Your task to perform on an android device: open sync settings in chrome Image 0: 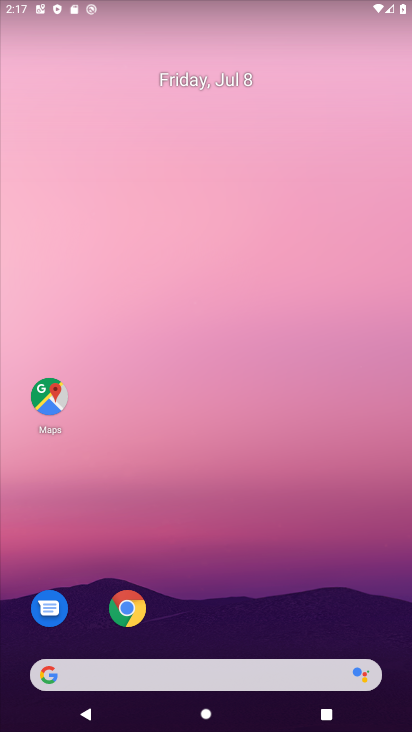
Step 0: drag from (338, 649) to (377, 13)
Your task to perform on an android device: open sync settings in chrome Image 1: 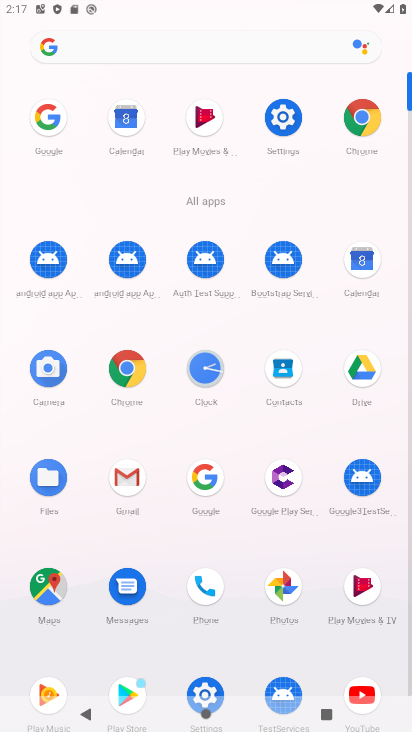
Step 1: click (112, 373)
Your task to perform on an android device: open sync settings in chrome Image 2: 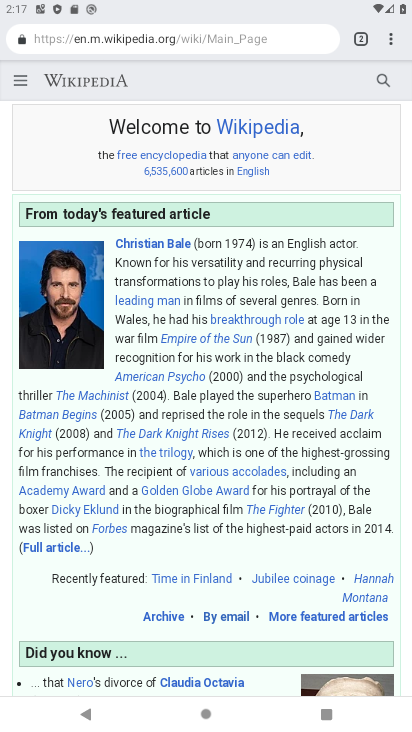
Step 2: drag from (395, 34) to (250, 469)
Your task to perform on an android device: open sync settings in chrome Image 3: 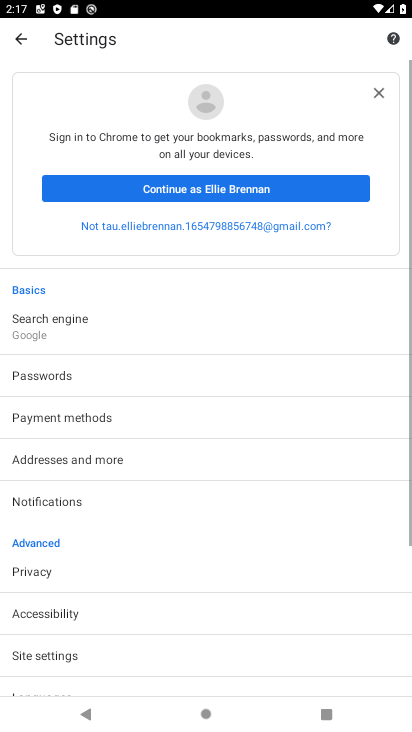
Step 3: drag from (236, 523) to (261, 190)
Your task to perform on an android device: open sync settings in chrome Image 4: 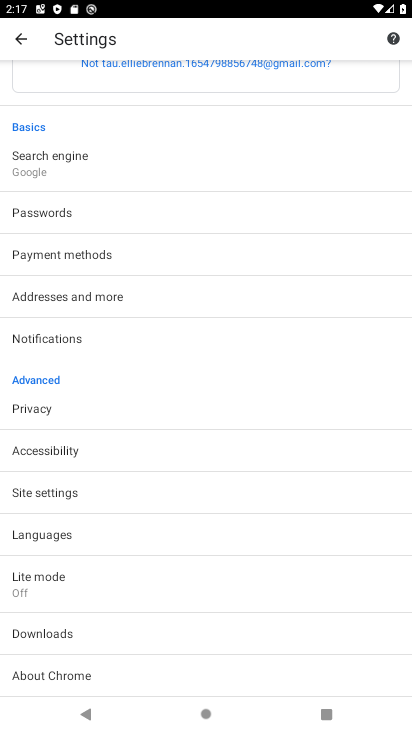
Step 4: click (127, 499)
Your task to perform on an android device: open sync settings in chrome Image 5: 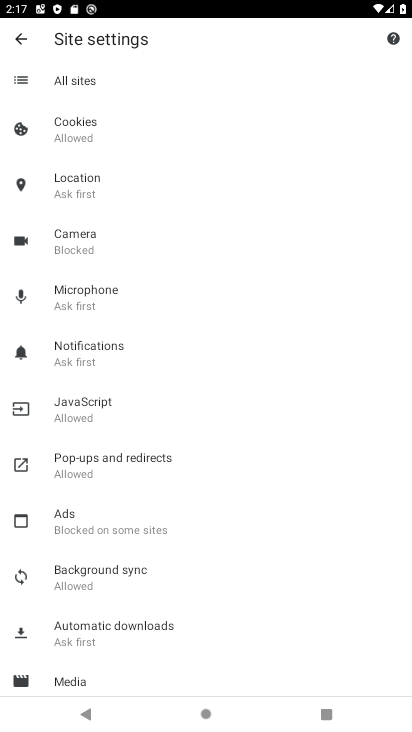
Step 5: click (117, 575)
Your task to perform on an android device: open sync settings in chrome Image 6: 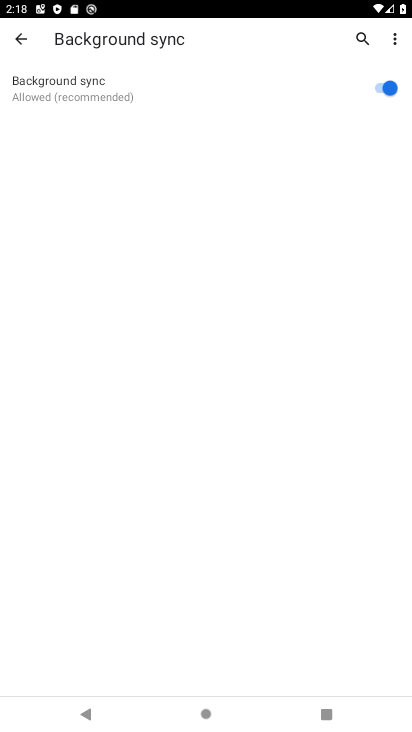
Step 6: task complete